Your task to perform on an android device: When is my next appointment? Image 0: 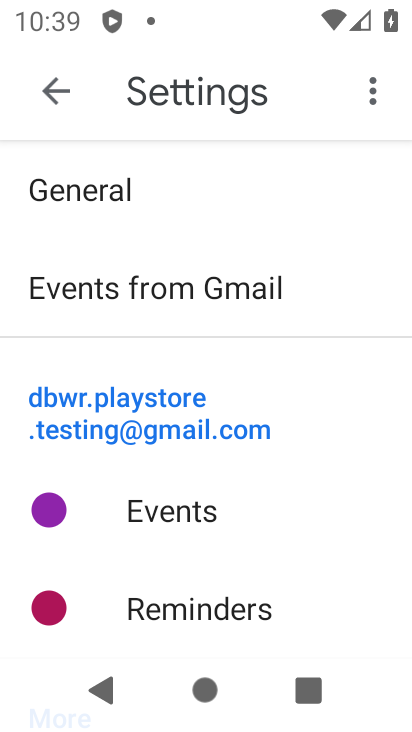
Step 0: press home button
Your task to perform on an android device: When is my next appointment? Image 1: 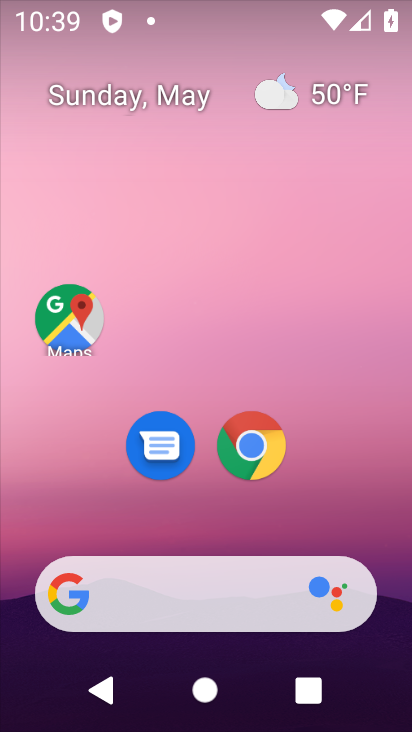
Step 1: drag from (209, 529) to (266, 1)
Your task to perform on an android device: When is my next appointment? Image 2: 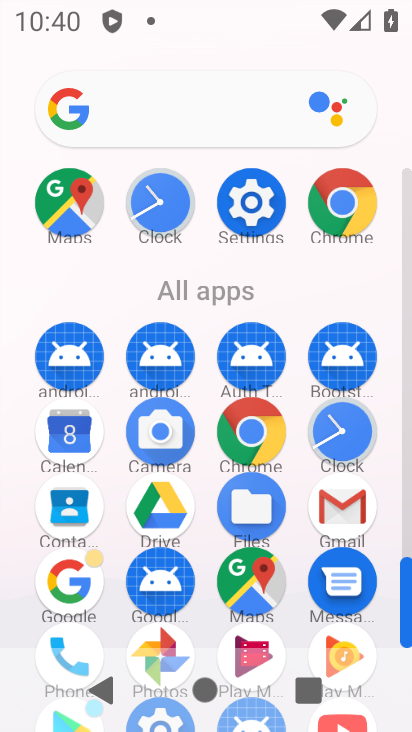
Step 2: click (76, 421)
Your task to perform on an android device: When is my next appointment? Image 3: 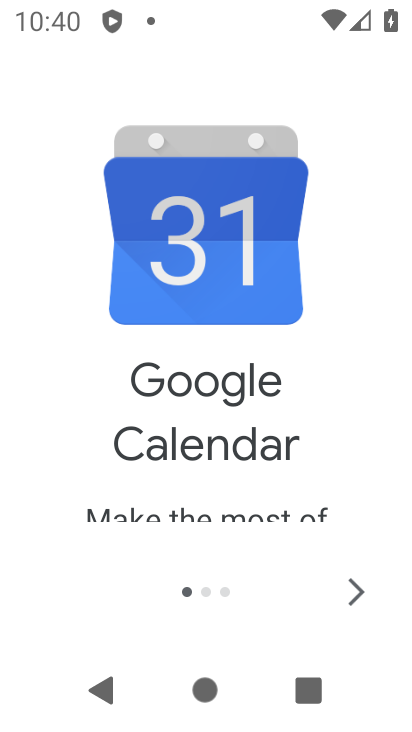
Step 3: click (355, 601)
Your task to perform on an android device: When is my next appointment? Image 4: 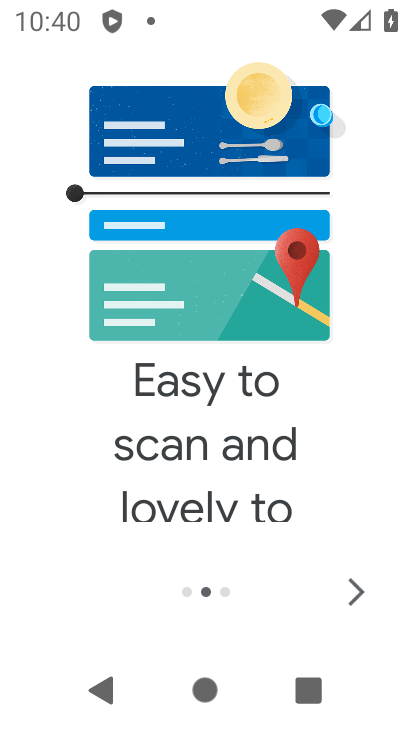
Step 4: click (347, 598)
Your task to perform on an android device: When is my next appointment? Image 5: 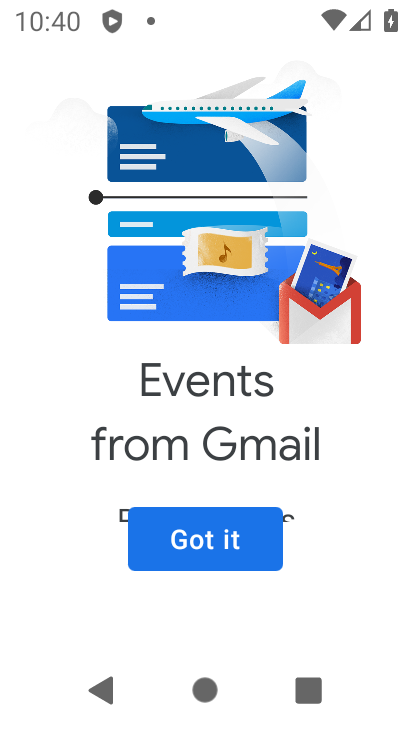
Step 5: click (249, 546)
Your task to perform on an android device: When is my next appointment? Image 6: 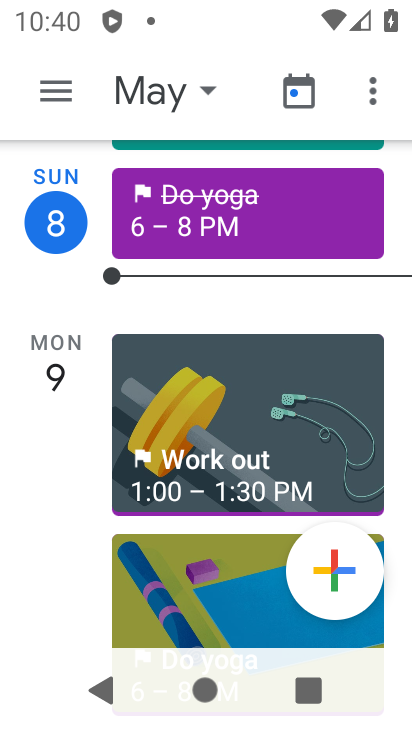
Step 6: click (72, 111)
Your task to perform on an android device: When is my next appointment? Image 7: 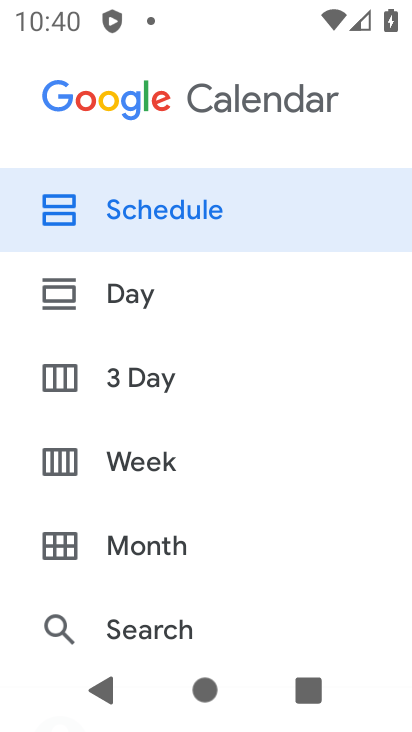
Step 7: click (216, 233)
Your task to perform on an android device: When is my next appointment? Image 8: 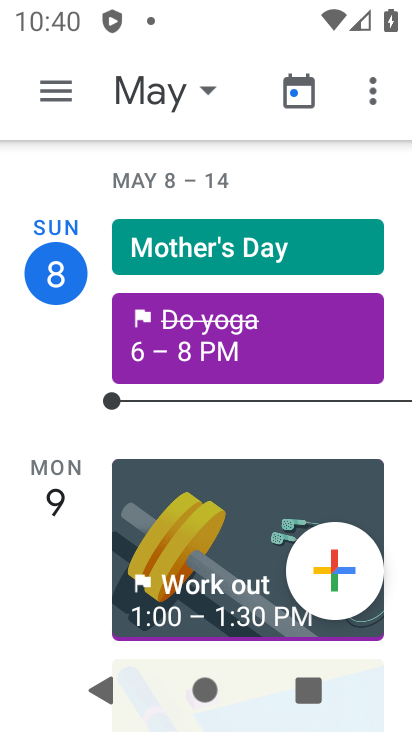
Step 8: task complete